Your task to perform on an android device: turn vacation reply on in the gmail app Image 0: 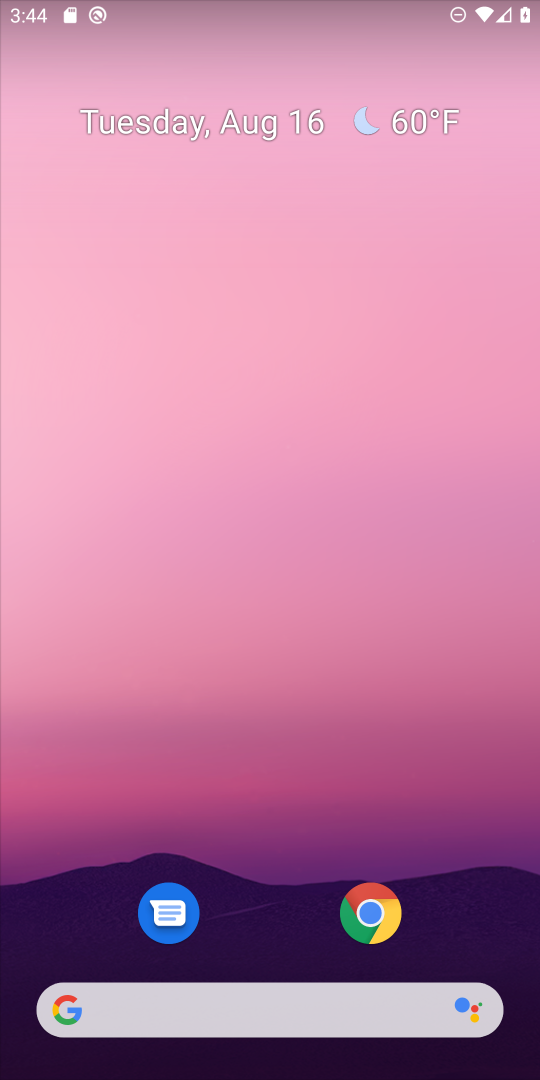
Step 0: drag from (504, 866) to (450, 208)
Your task to perform on an android device: turn vacation reply on in the gmail app Image 1: 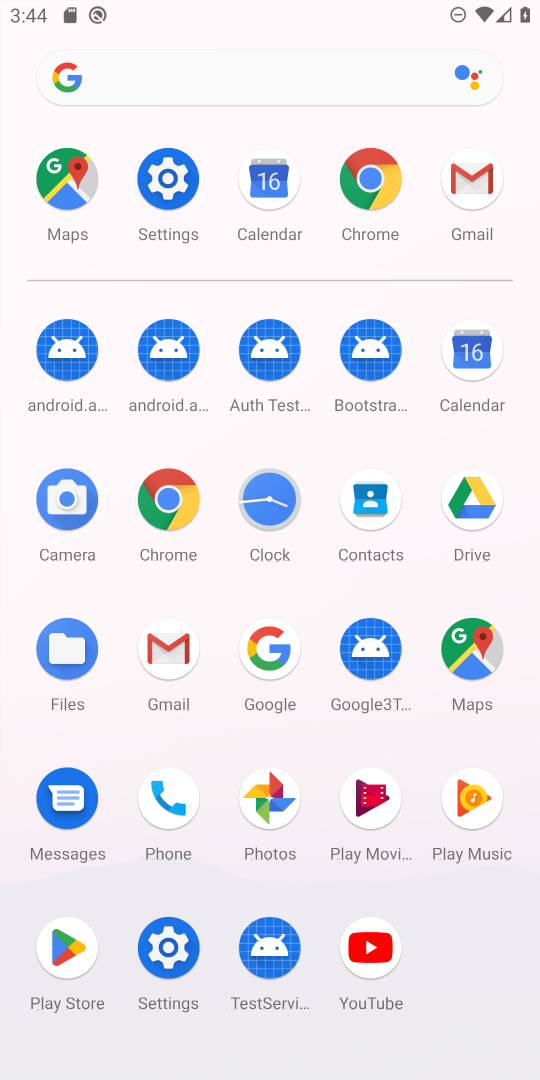
Step 1: click (170, 648)
Your task to perform on an android device: turn vacation reply on in the gmail app Image 2: 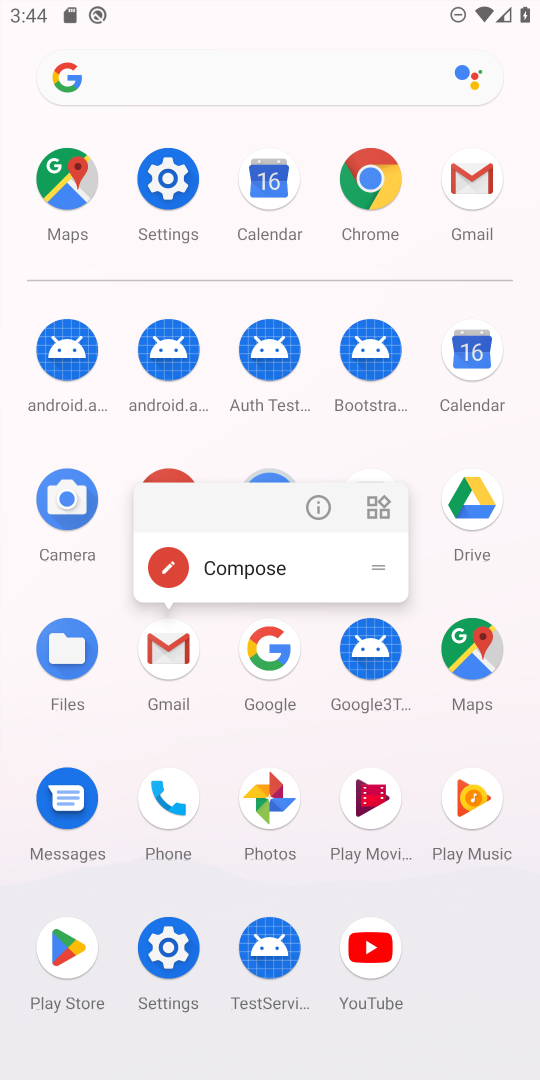
Step 2: click (170, 648)
Your task to perform on an android device: turn vacation reply on in the gmail app Image 3: 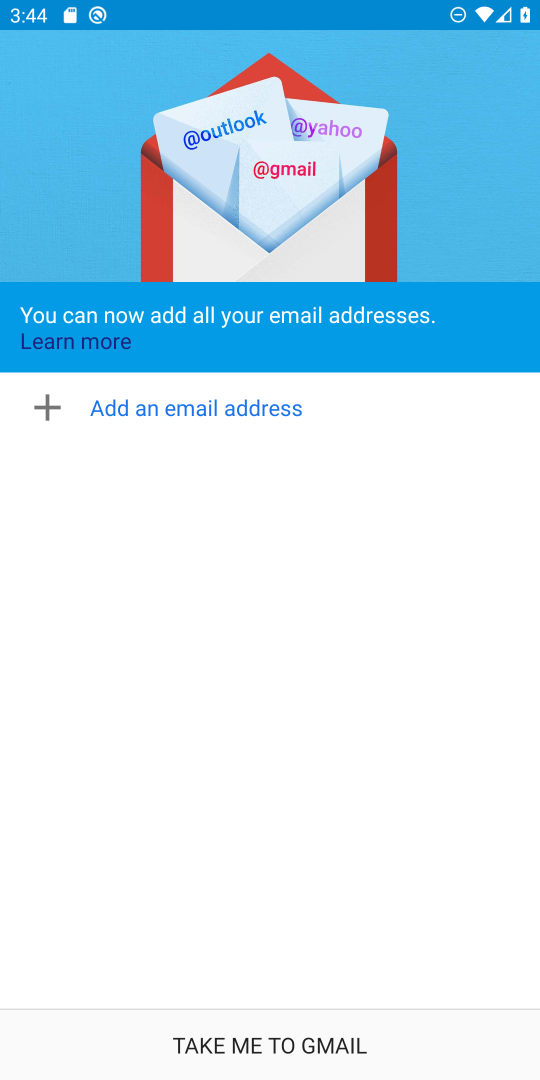
Step 3: click (288, 1053)
Your task to perform on an android device: turn vacation reply on in the gmail app Image 4: 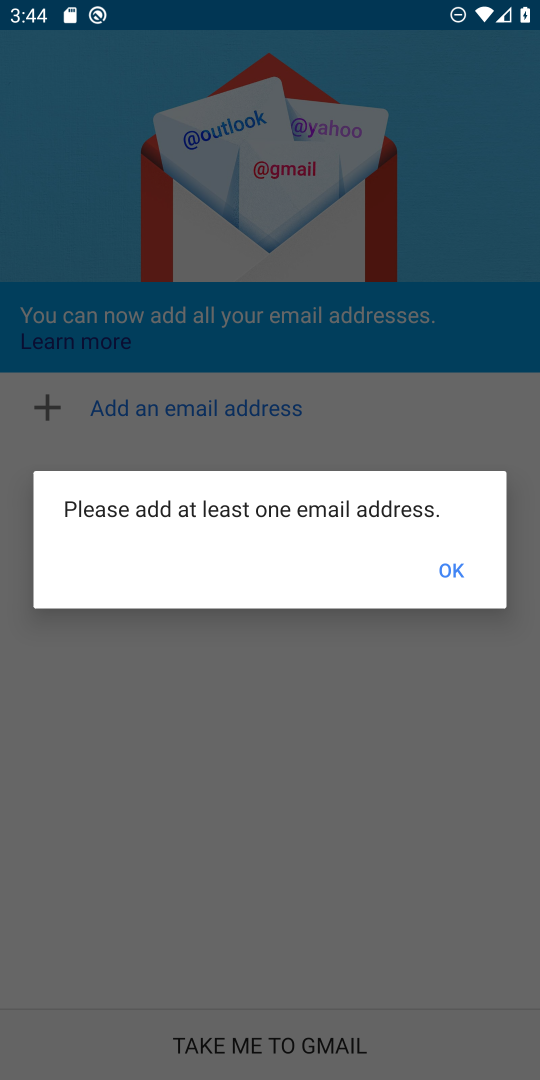
Step 4: drag from (392, 841) to (392, 731)
Your task to perform on an android device: turn vacation reply on in the gmail app Image 5: 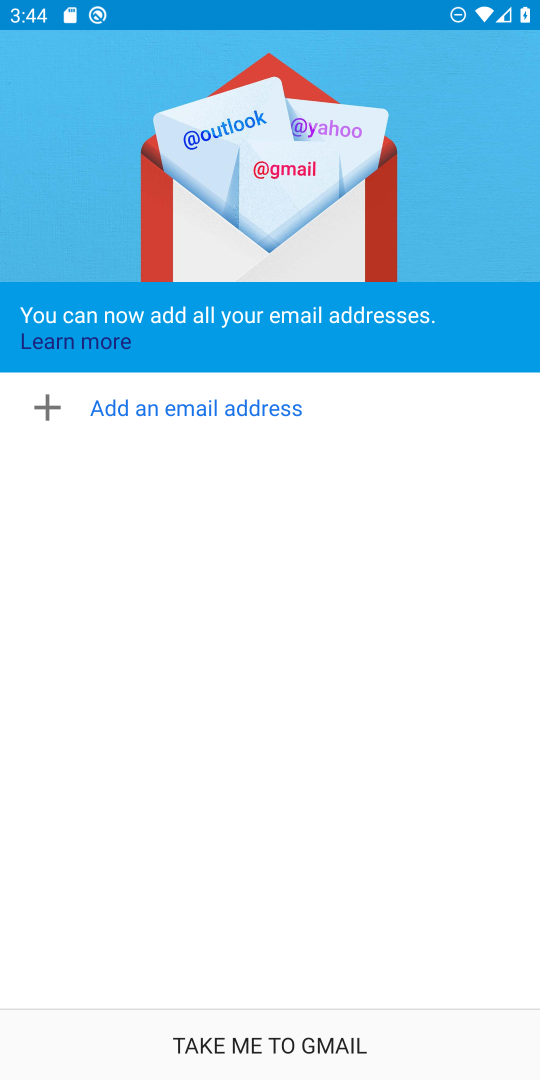
Step 5: click (453, 571)
Your task to perform on an android device: turn vacation reply on in the gmail app Image 6: 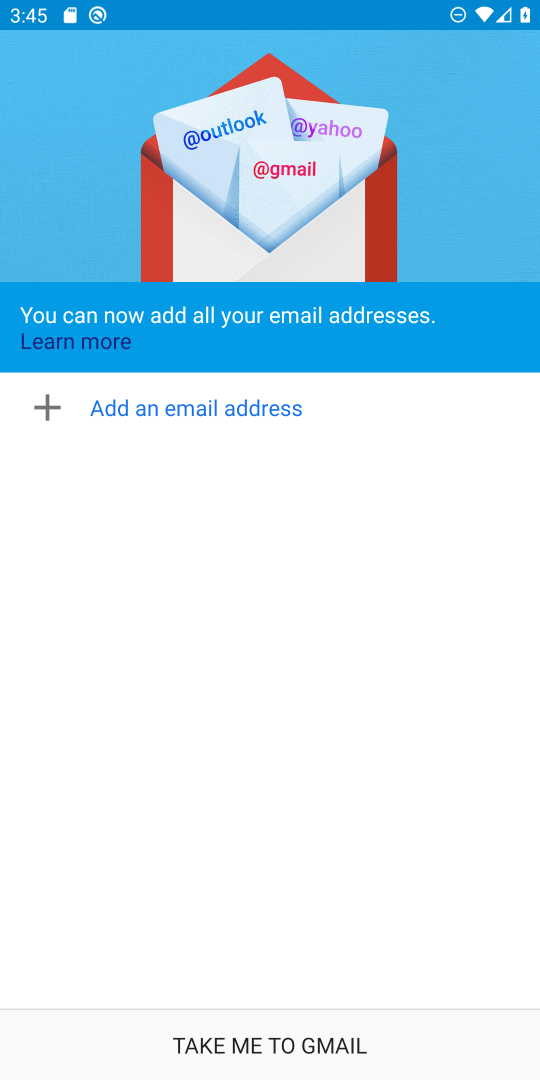
Step 6: task complete